Your task to perform on an android device: toggle translation in the chrome app Image 0: 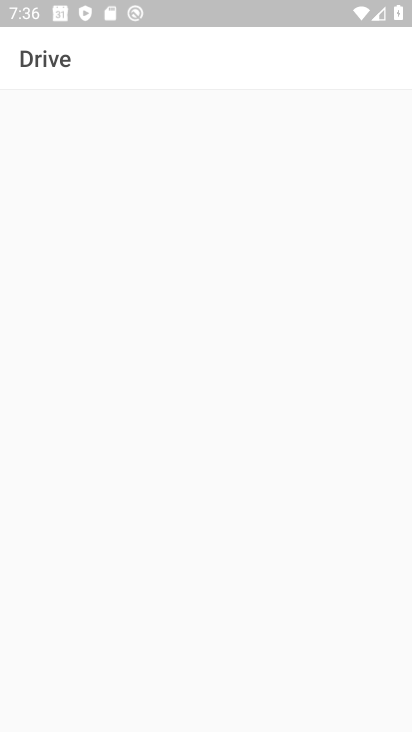
Step 0: press home button
Your task to perform on an android device: toggle translation in the chrome app Image 1: 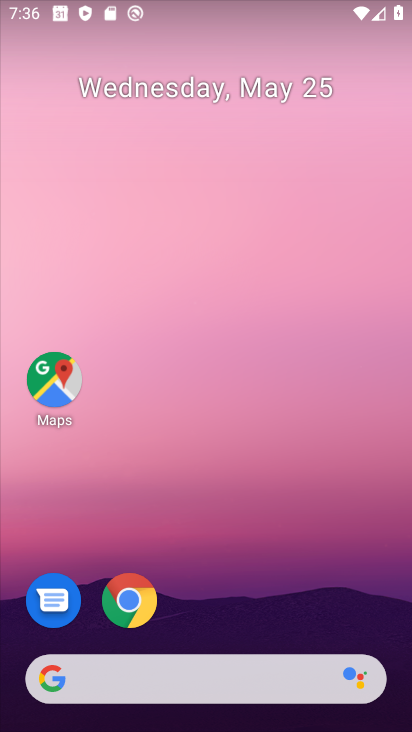
Step 1: click (135, 598)
Your task to perform on an android device: toggle translation in the chrome app Image 2: 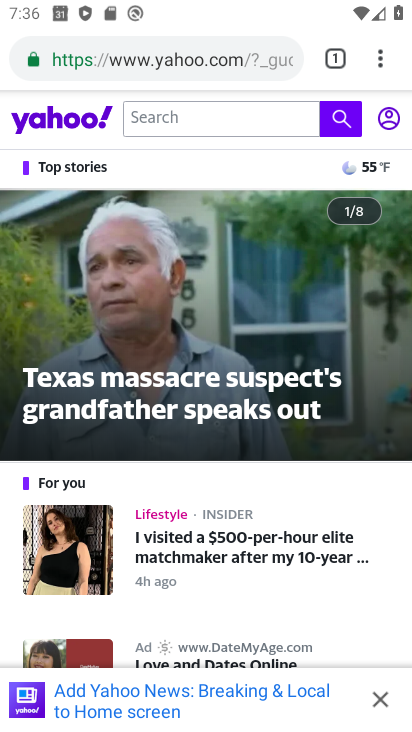
Step 2: drag from (373, 57) to (272, 634)
Your task to perform on an android device: toggle translation in the chrome app Image 3: 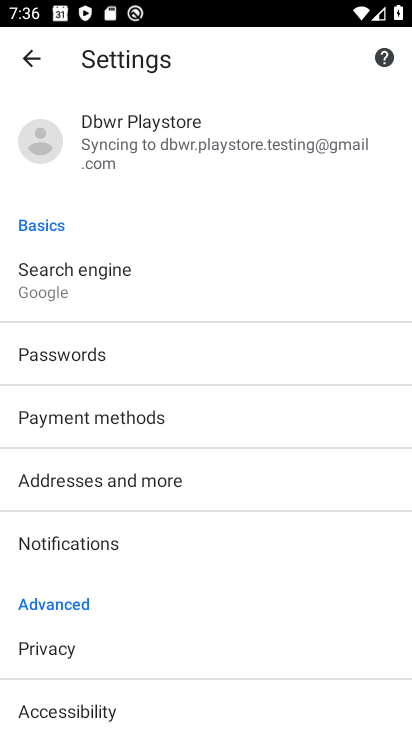
Step 3: drag from (223, 471) to (217, 202)
Your task to perform on an android device: toggle translation in the chrome app Image 4: 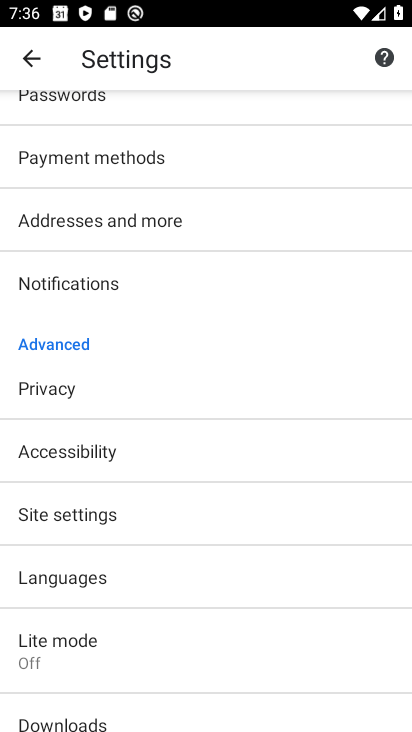
Step 4: drag from (173, 464) to (218, 253)
Your task to perform on an android device: toggle translation in the chrome app Image 5: 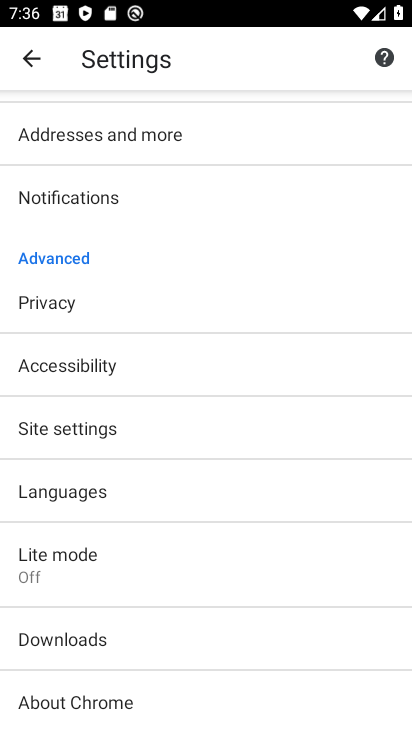
Step 5: click (82, 487)
Your task to perform on an android device: toggle translation in the chrome app Image 6: 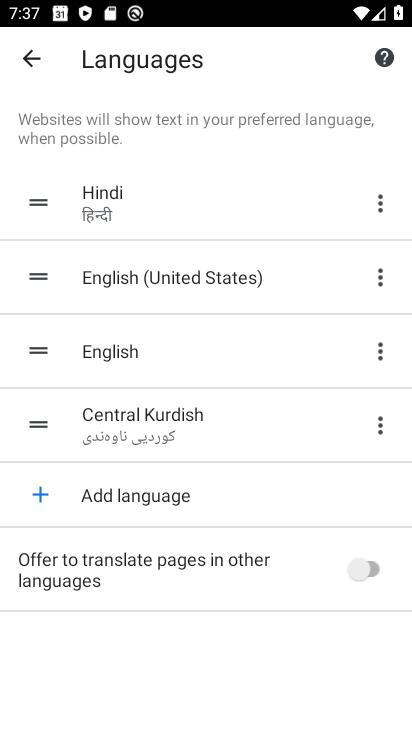
Step 6: click (373, 571)
Your task to perform on an android device: toggle translation in the chrome app Image 7: 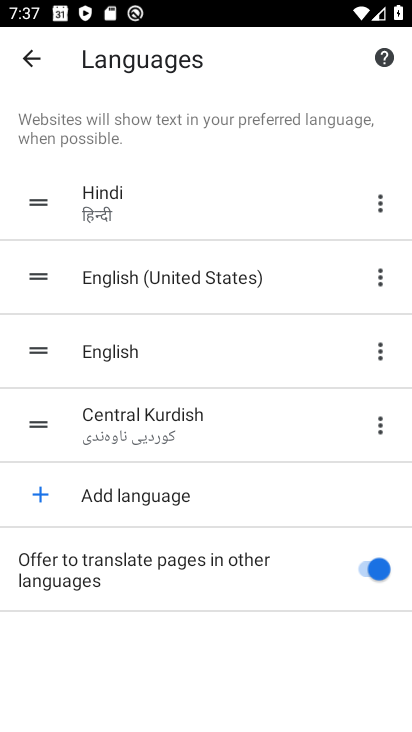
Step 7: task complete